Your task to perform on an android device: check google app version Image 0: 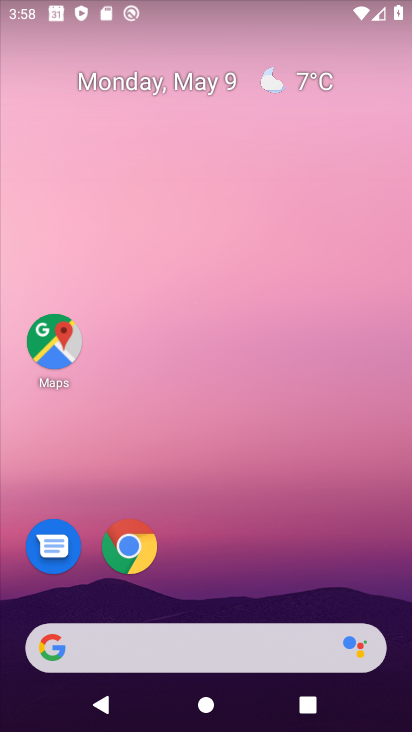
Step 0: drag from (207, 615) to (330, 1)
Your task to perform on an android device: check google app version Image 1: 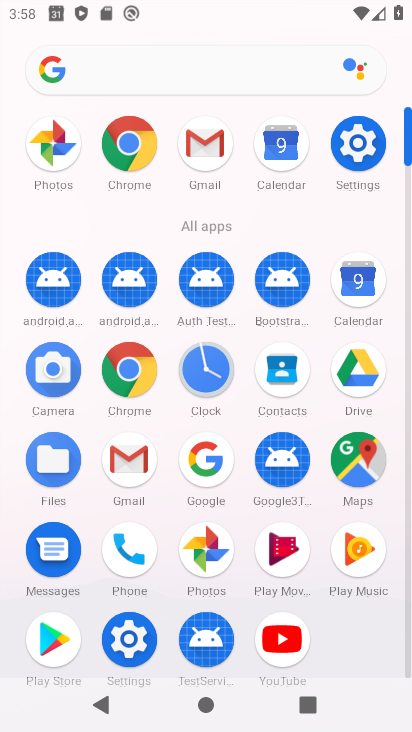
Step 1: click (130, 646)
Your task to perform on an android device: check google app version Image 2: 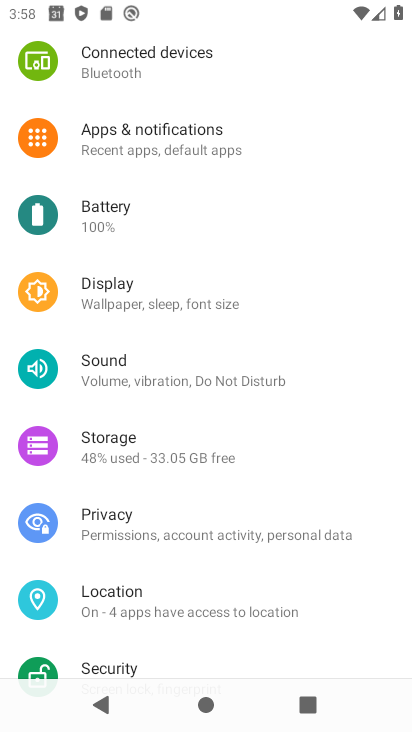
Step 2: click (192, 149)
Your task to perform on an android device: check google app version Image 3: 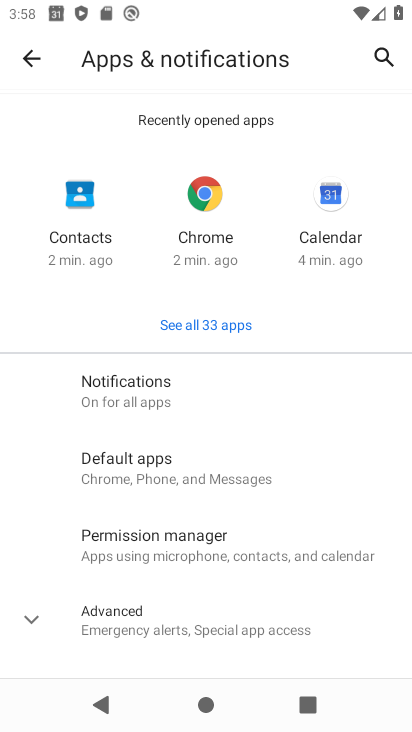
Step 3: click (205, 331)
Your task to perform on an android device: check google app version Image 4: 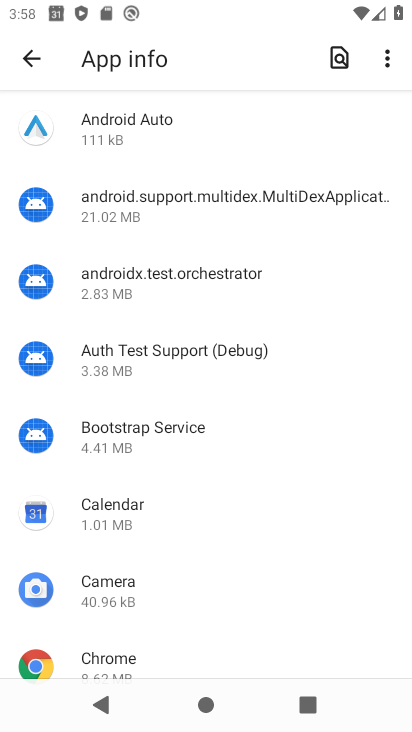
Step 4: drag from (176, 706) to (259, 349)
Your task to perform on an android device: check google app version Image 5: 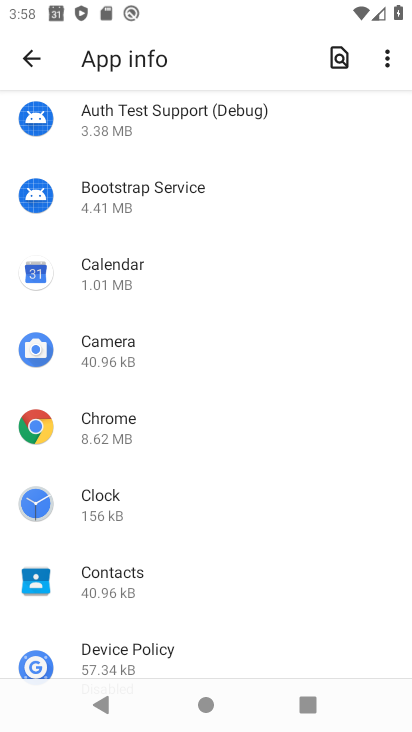
Step 5: drag from (136, 655) to (242, 327)
Your task to perform on an android device: check google app version Image 6: 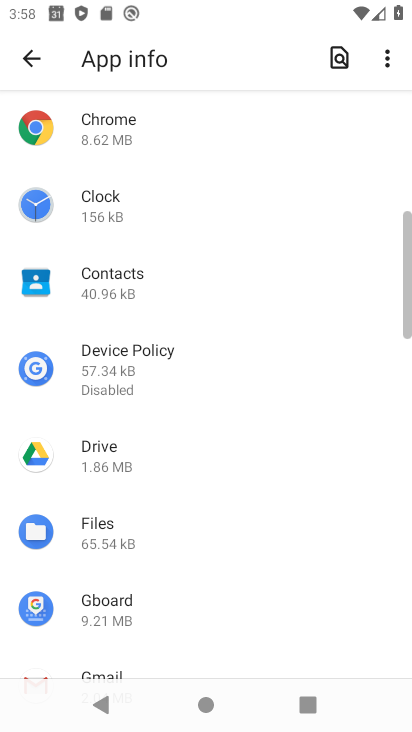
Step 6: drag from (133, 658) to (247, 309)
Your task to perform on an android device: check google app version Image 7: 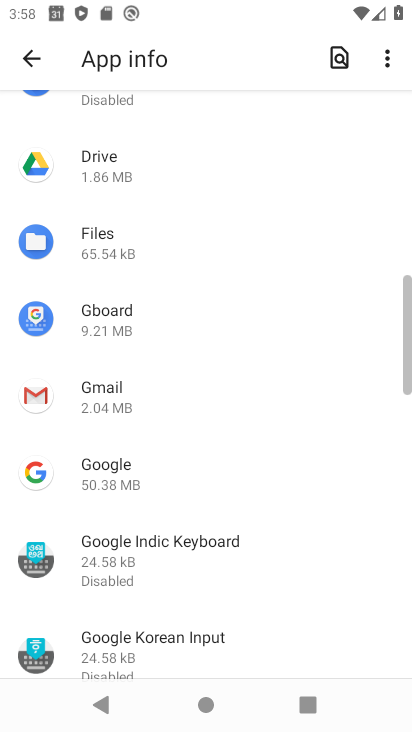
Step 7: click (151, 478)
Your task to perform on an android device: check google app version Image 8: 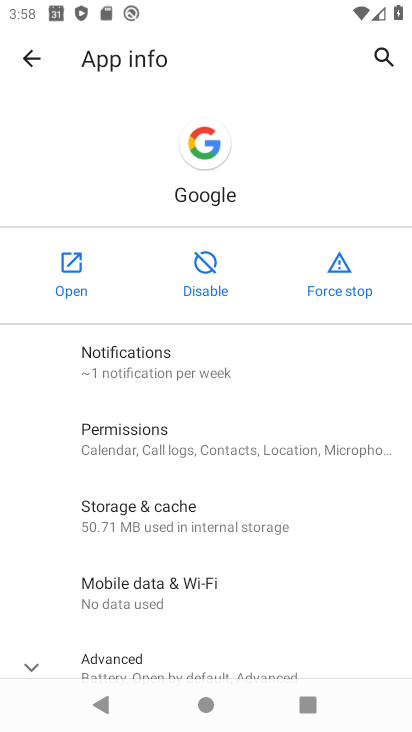
Step 8: drag from (161, 647) to (267, 366)
Your task to perform on an android device: check google app version Image 9: 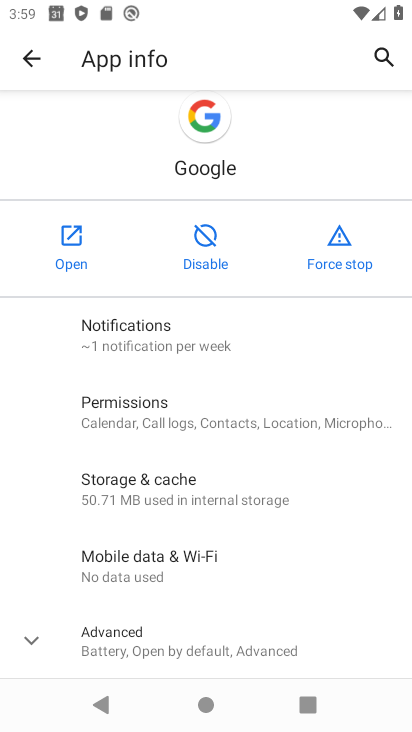
Step 9: click (151, 632)
Your task to perform on an android device: check google app version Image 10: 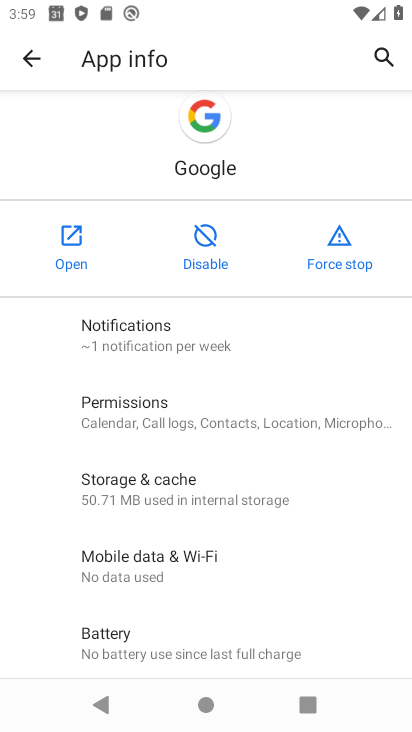
Step 10: task complete